Your task to perform on an android device: toggle javascript in the chrome app Image 0: 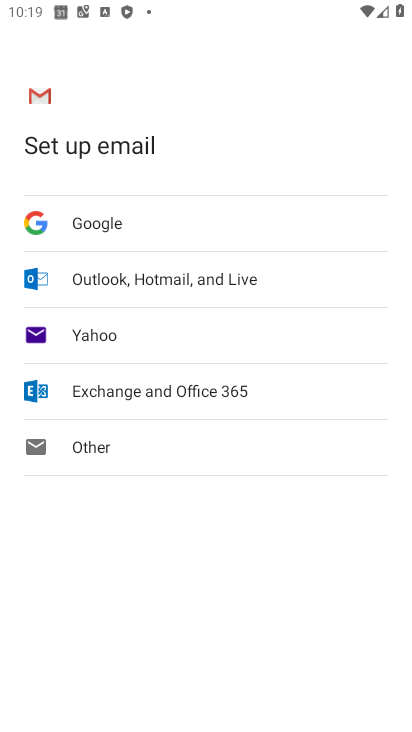
Step 0: press home button
Your task to perform on an android device: toggle javascript in the chrome app Image 1: 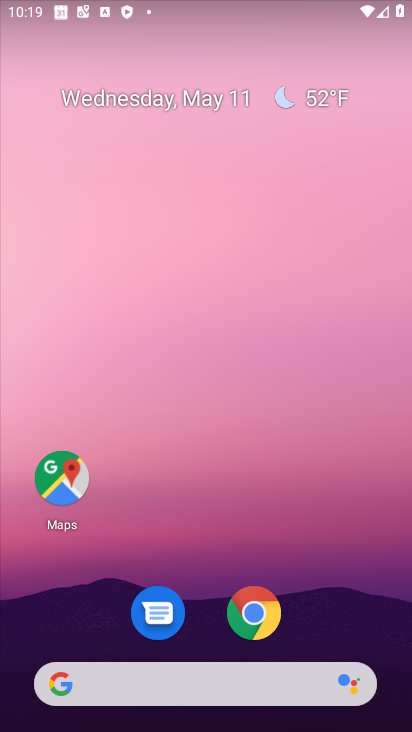
Step 1: drag from (241, 545) to (212, 178)
Your task to perform on an android device: toggle javascript in the chrome app Image 2: 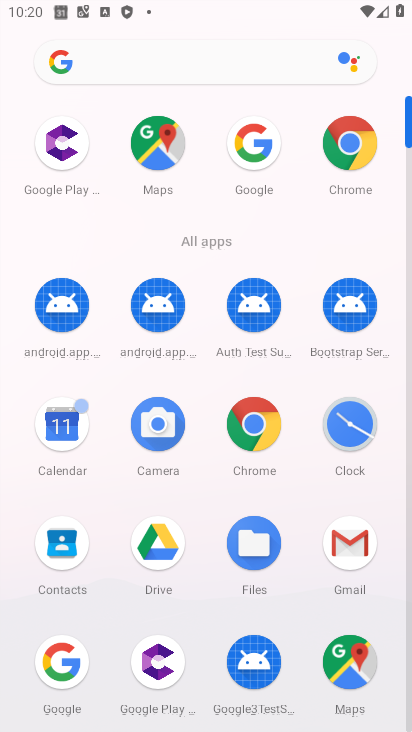
Step 2: click (257, 447)
Your task to perform on an android device: toggle javascript in the chrome app Image 3: 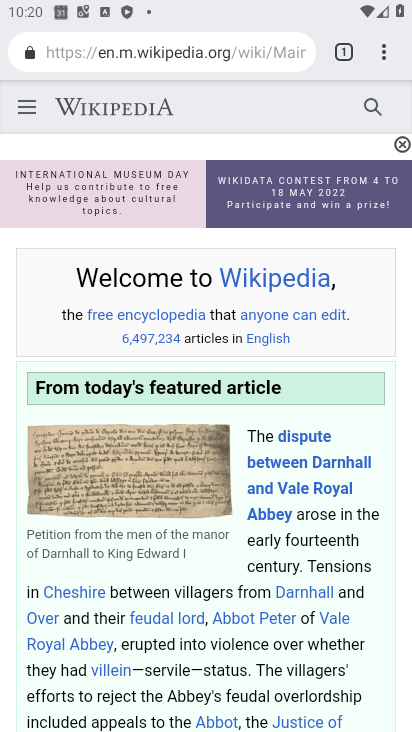
Step 3: click (384, 58)
Your task to perform on an android device: toggle javascript in the chrome app Image 4: 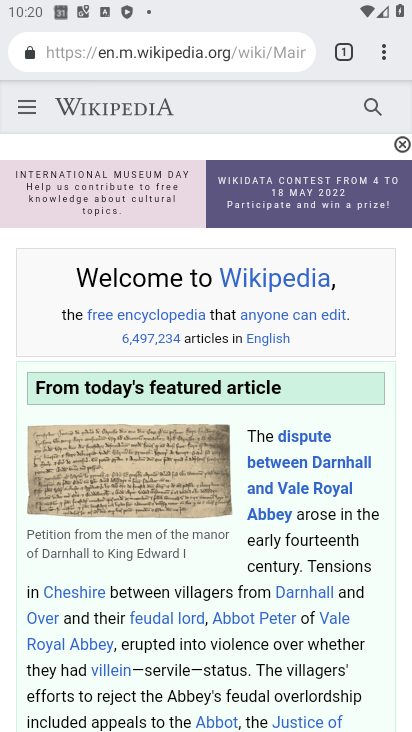
Step 4: click (382, 57)
Your task to perform on an android device: toggle javascript in the chrome app Image 5: 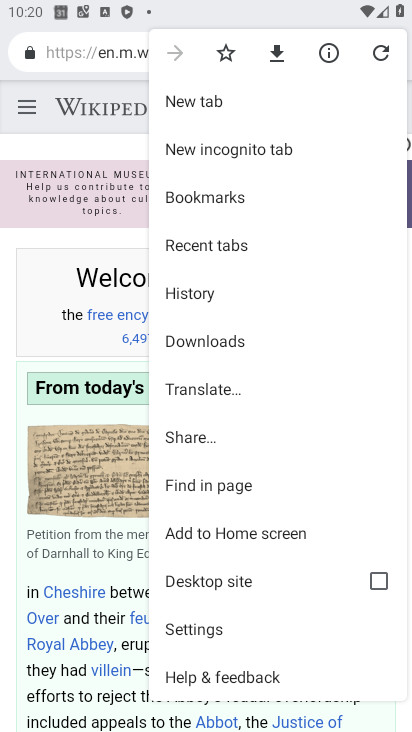
Step 5: click (220, 629)
Your task to perform on an android device: toggle javascript in the chrome app Image 6: 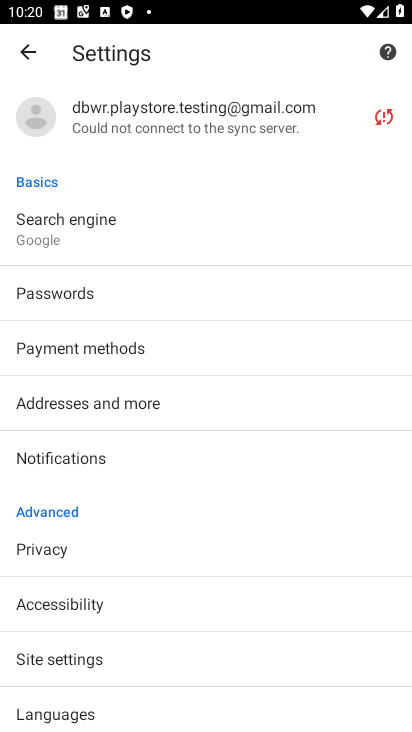
Step 6: click (124, 660)
Your task to perform on an android device: toggle javascript in the chrome app Image 7: 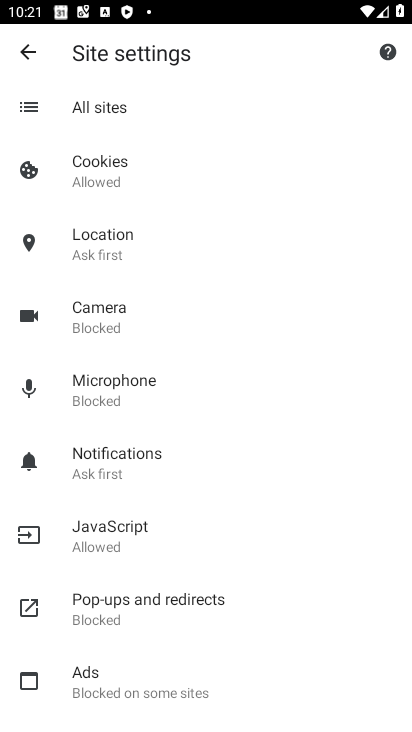
Step 7: click (93, 543)
Your task to perform on an android device: toggle javascript in the chrome app Image 8: 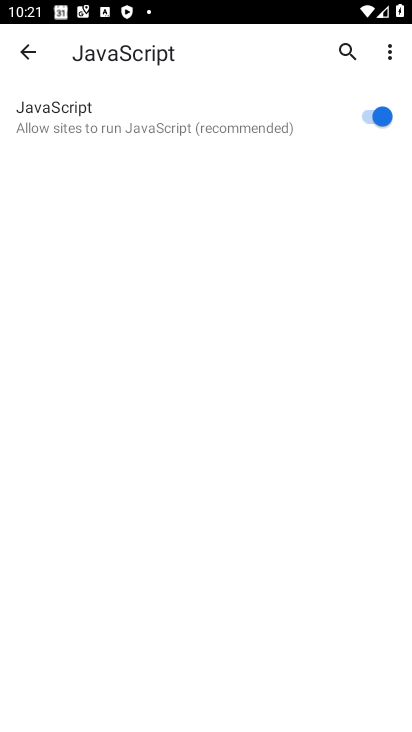
Step 8: click (376, 121)
Your task to perform on an android device: toggle javascript in the chrome app Image 9: 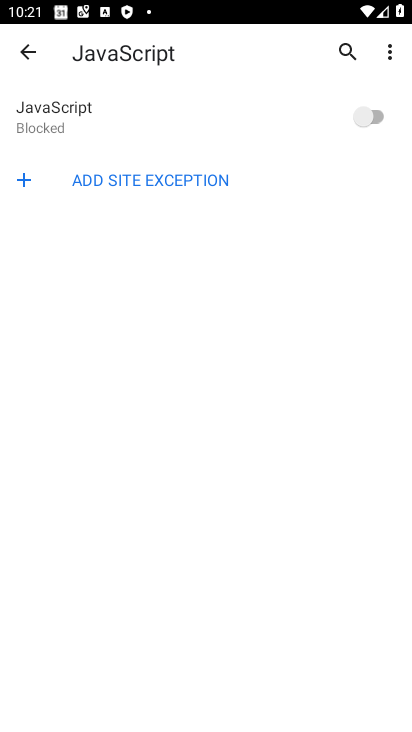
Step 9: task complete